Your task to perform on an android device: Toggle the flashlight Image 0: 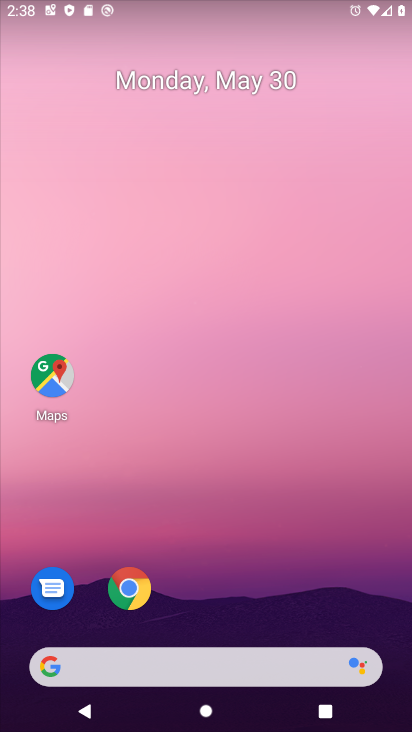
Step 0: drag from (245, 5) to (237, 494)
Your task to perform on an android device: Toggle the flashlight Image 1: 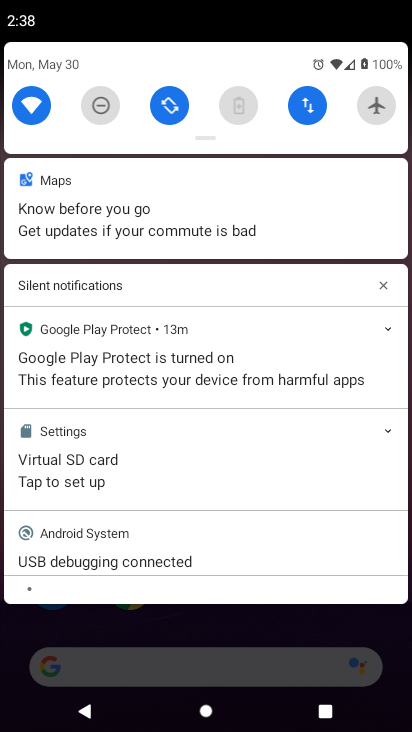
Step 1: drag from (213, 143) to (207, 534)
Your task to perform on an android device: Toggle the flashlight Image 2: 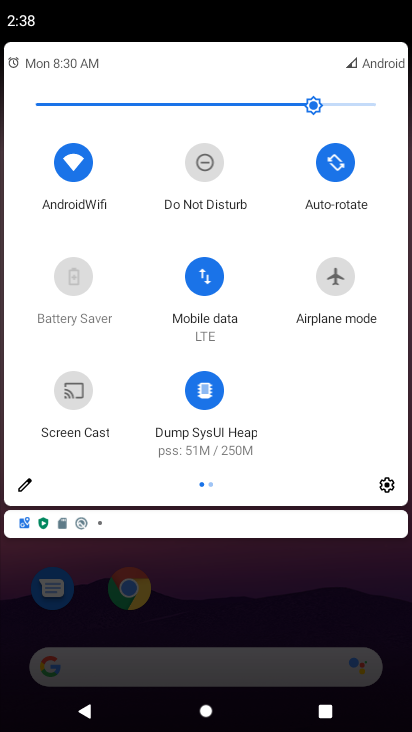
Step 2: click (26, 488)
Your task to perform on an android device: Toggle the flashlight Image 3: 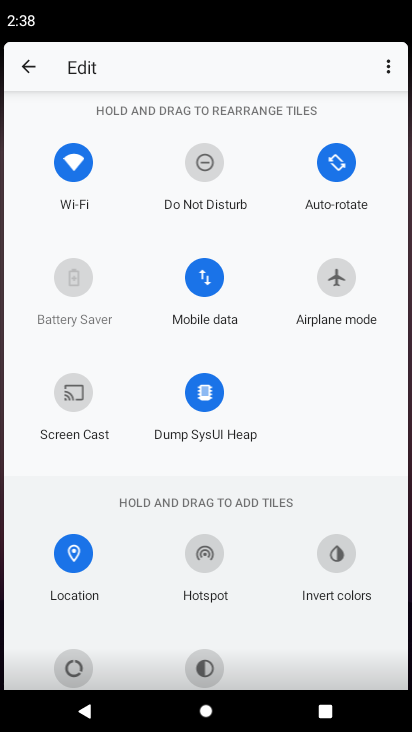
Step 3: task complete